Your task to perform on an android device: Do I have any events this weekend? Image 0: 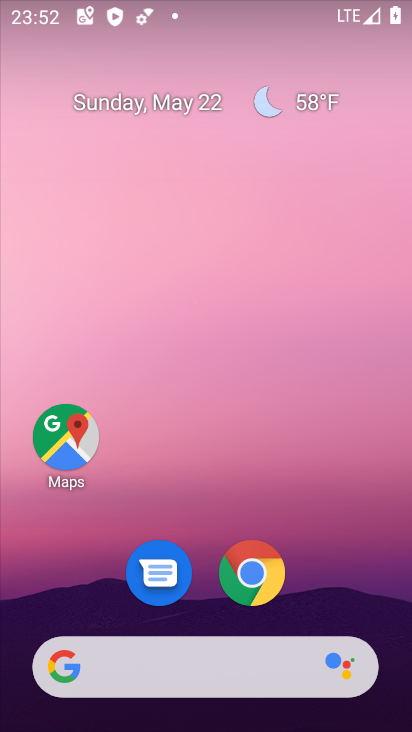
Step 0: drag from (208, 620) to (192, 10)
Your task to perform on an android device: Do I have any events this weekend? Image 1: 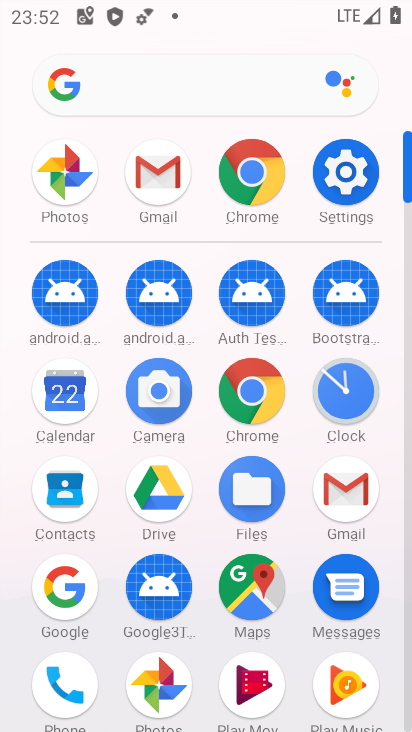
Step 1: drag from (198, 604) to (203, 373)
Your task to perform on an android device: Do I have any events this weekend? Image 2: 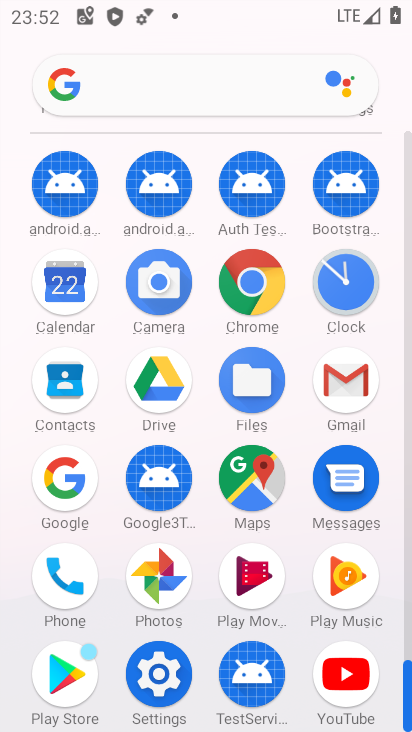
Step 2: click (83, 277)
Your task to perform on an android device: Do I have any events this weekend? Image 3: 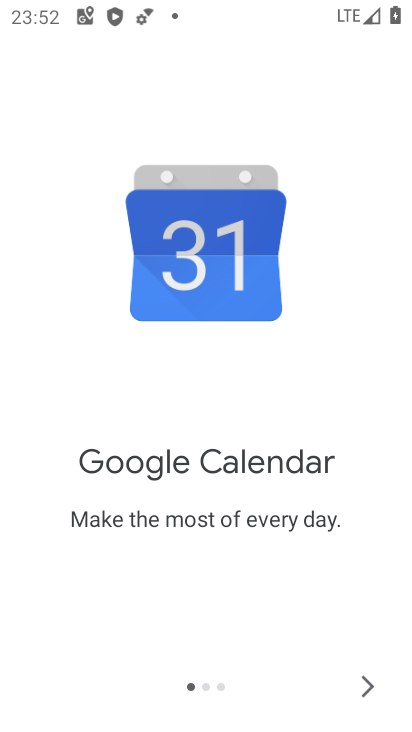
Step 3: click (368, 682)
Your task to perform on an android device: Do I have any events this weekend? Image 4: 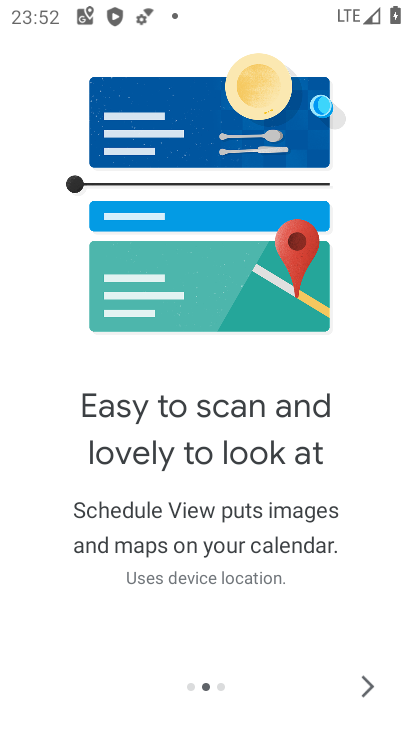
Step 4: click (364, 689)
Your task to perform on an android device: Do I have any events this weekend? Image 5: 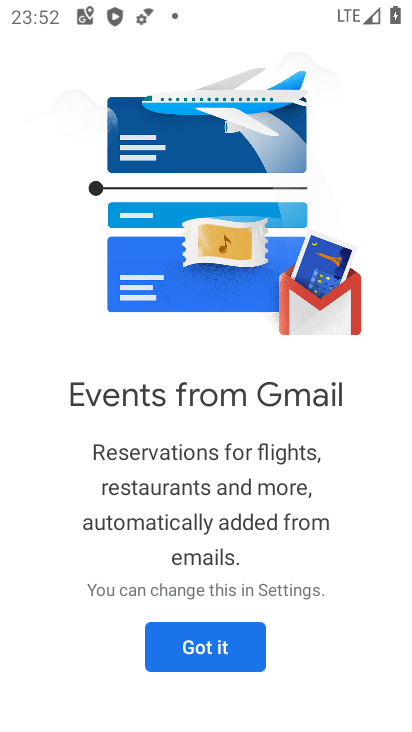
Step 5: click (191, 643)
Your task to perform on an android device: Do I have any events this weekend? Image 6: 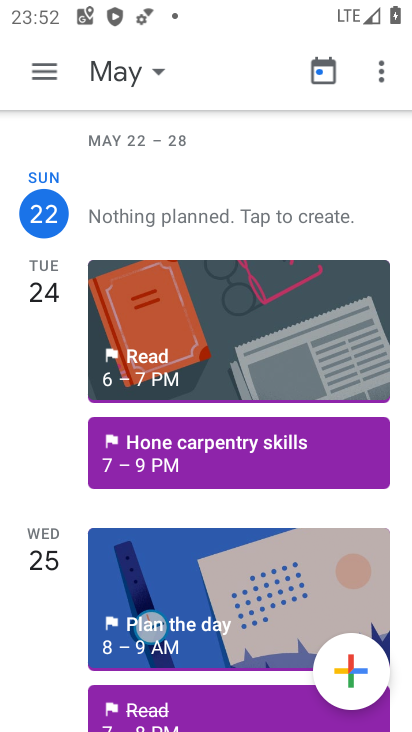
Step 6: click (37, 67)
Your task to perform on an android device: Do I have any events this weekend? Image 7: 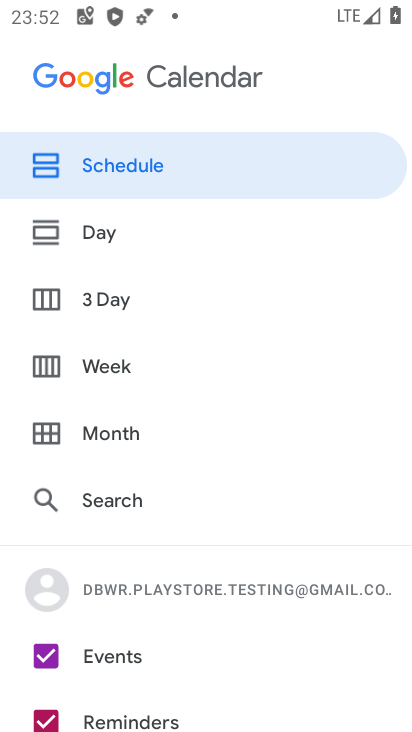
Step 7: click (141, 370)
Your task to perform on an android device: Do I have any events this weekend? Image 8: 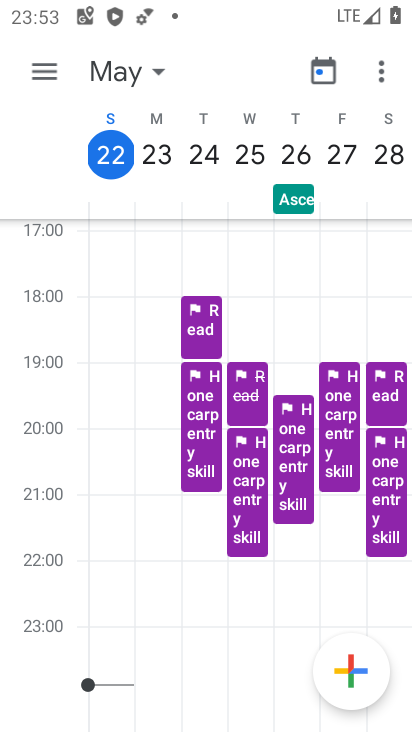
Step 8: click (37, 76)
Your task to perform on an android device: Do I have any events this weekend? Image 9: 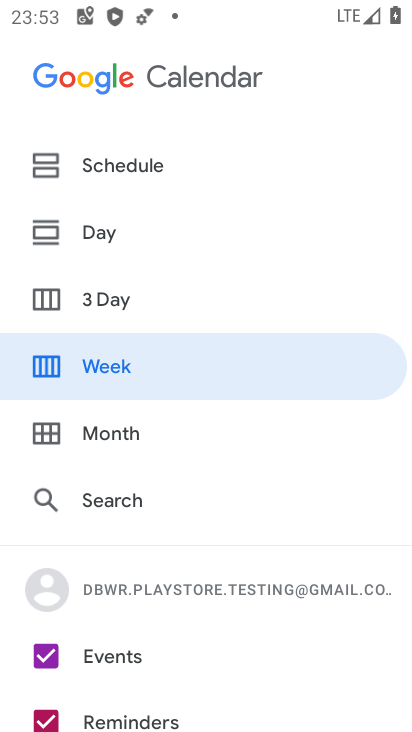
Step 9: drag from (103, 545) to (139, 249)
Your task to perform on an android device: Do I have any events this weekend? Image 10: 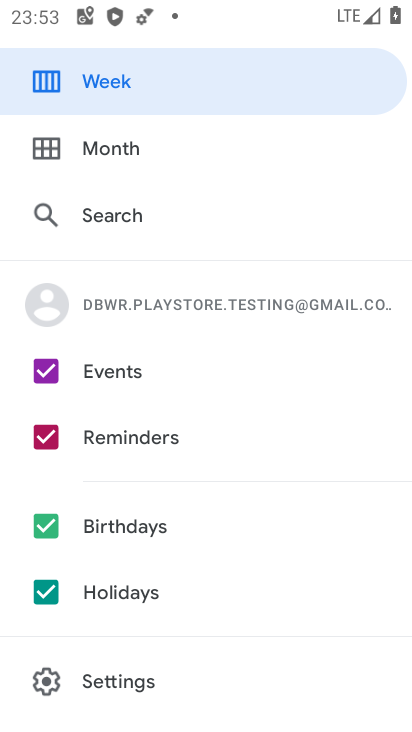
Step 10: click (128, 440)
Your task to perform on an android device: Do I have any events this weekend? Image 11: 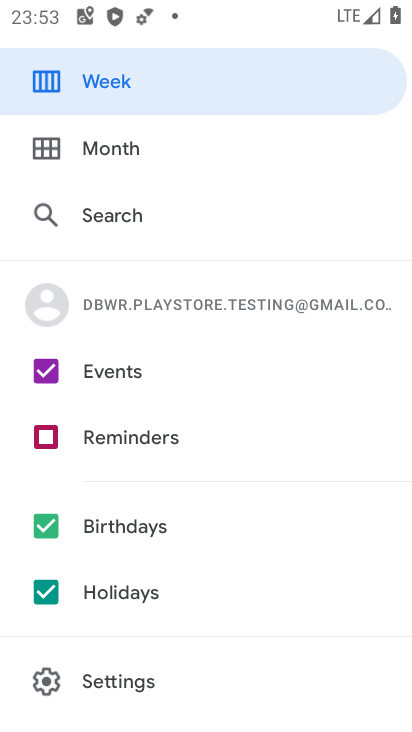
Step 11: click (121, 530)
Your task to perform on an android device: Do I have any events this weekend? Image 12: 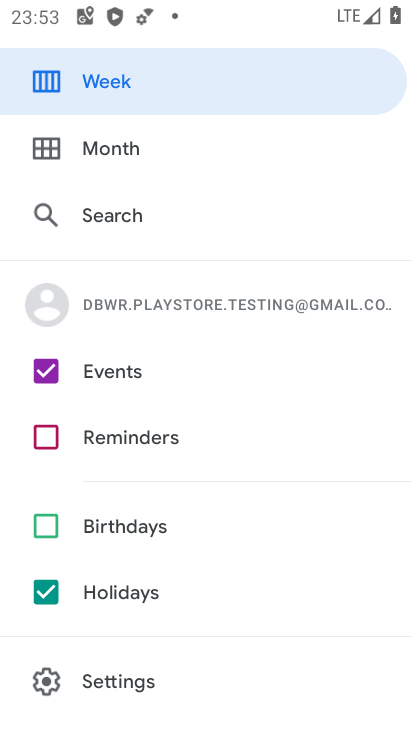
Step 12: click (106, 593)
Your task to perform on an android device: Do I have any events this weekend? Image 13: 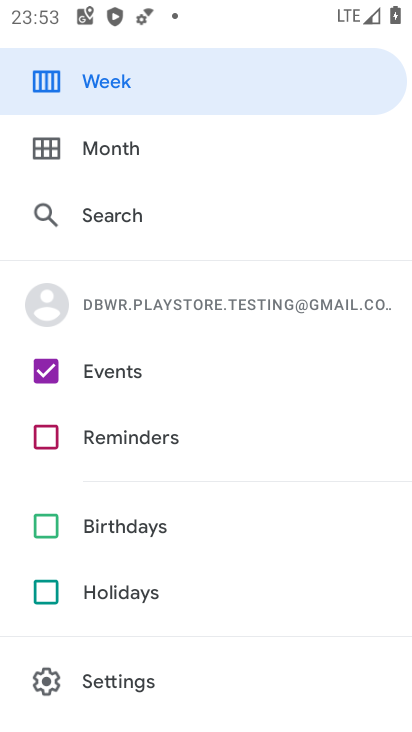
Step 13: click (114, 81)
Your task to perform on an android device: Do I have any events this weekend? Image 14: 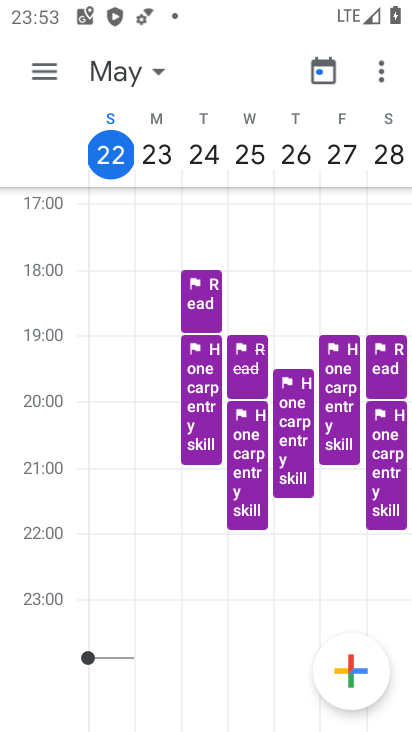
Step 14: task complete